Your task to perform on an android device: See recent photos Image 0: 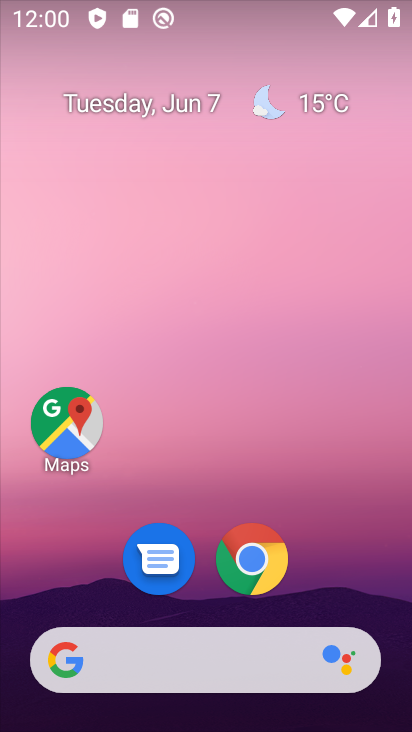
Step 0: drag from (327, 605) to (368, 15)
Your task to perform on an android device: See recent photos Image 1: 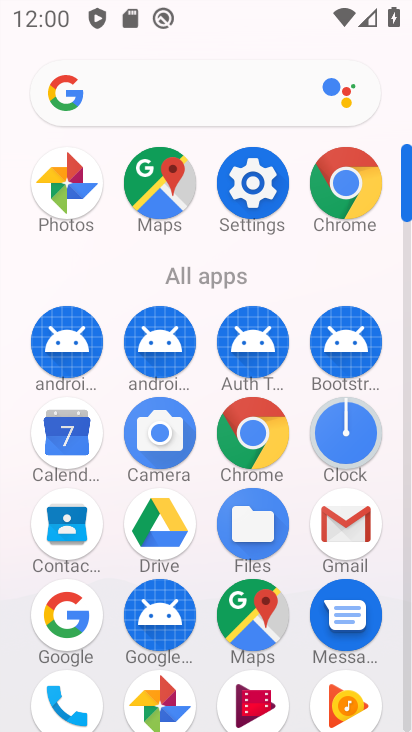
Step 1: click (178, 700)
Your task to perform on an android device: See recent photos Image 2: 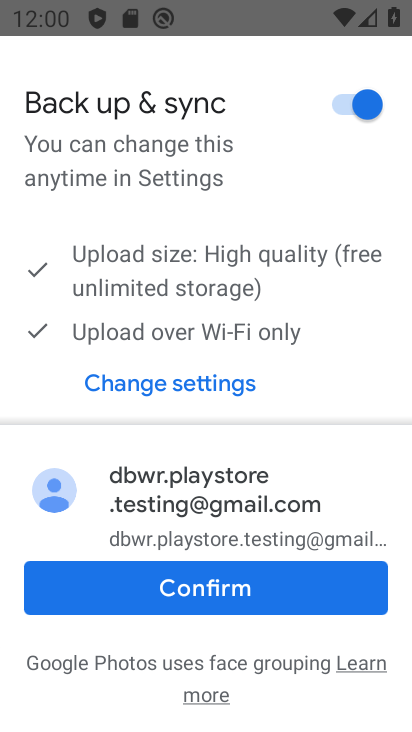
Step 2: click (178, 563)
Your task to perform on an android device: See recent photos Image 3: 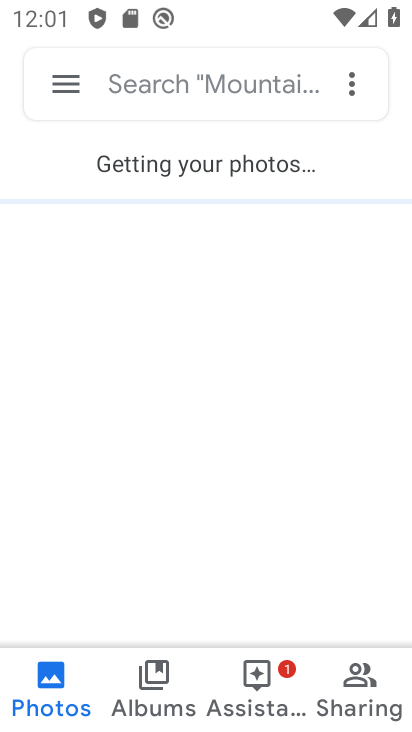
Step 3: click (60, 78)
Your task to perform on an android device: See recent photos Image 4: 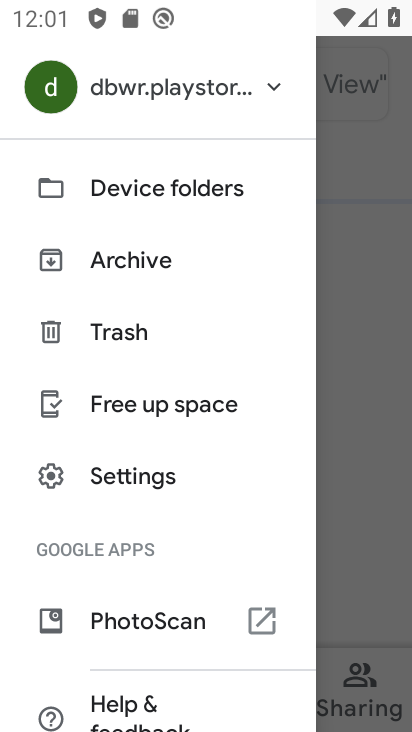
Step 4: click (387, 404)
Your task to perform on an android device: See recent photos Image 5: 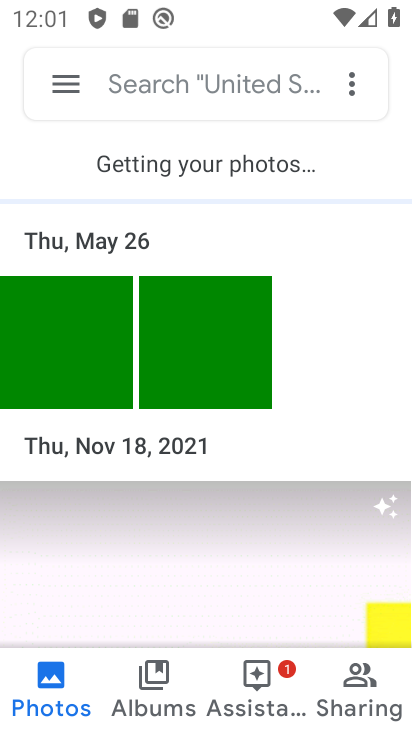
Step 5: task complete